Your task to perform on an android device: Open calendar and show me the second week of next month Image 0: 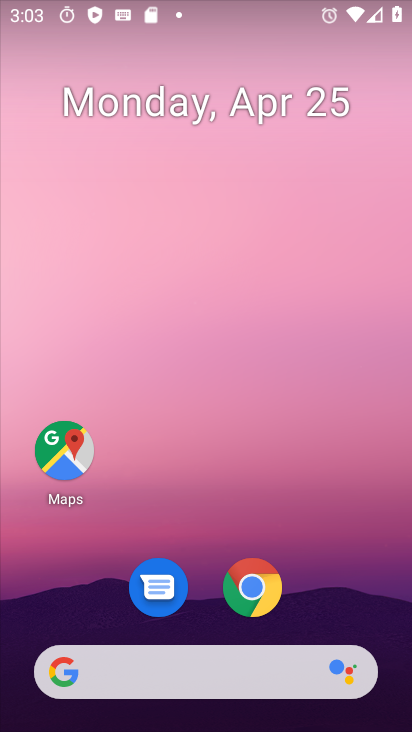
Step 0: drag from (369, 612) to (246, 105)
Your task to perform on an android device: Open calendar and show me the second week of next month Image 1: 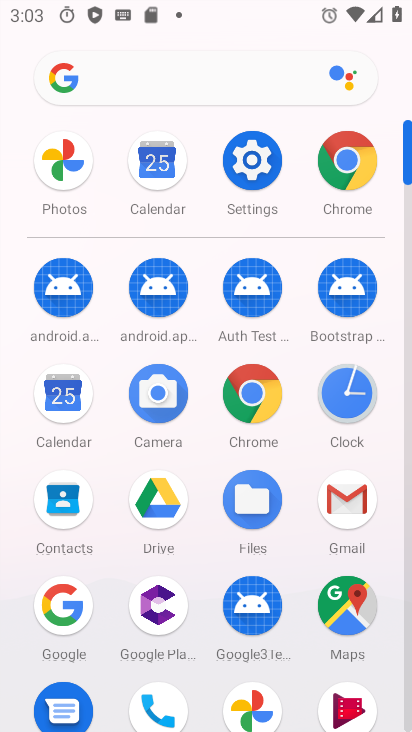
Step 1: click (57, 388)
Your task to perform on an android device: Open calendar and show me the second week of next month Image 2: 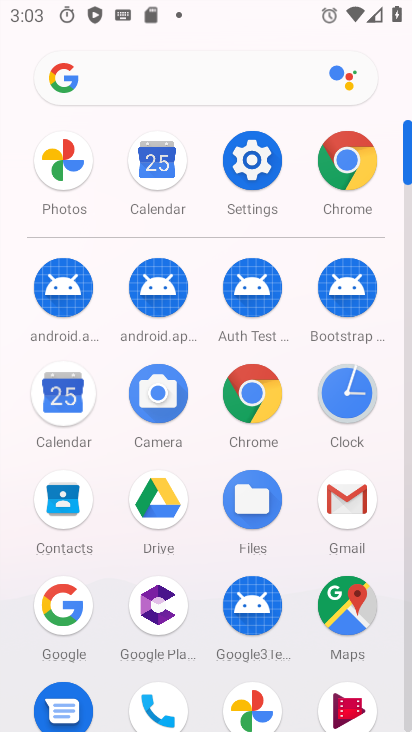
Step 2: click (58, 388)
Your task to perform on an android device: Open calendar and show me the second week of next month Image 3: 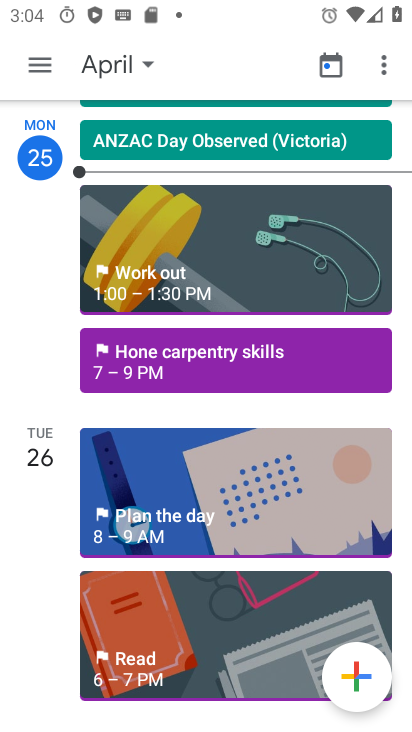
Step 3: click (105, 59)
Your task to perform on an android device: Open calendar and show me the second week of next month Image 4: 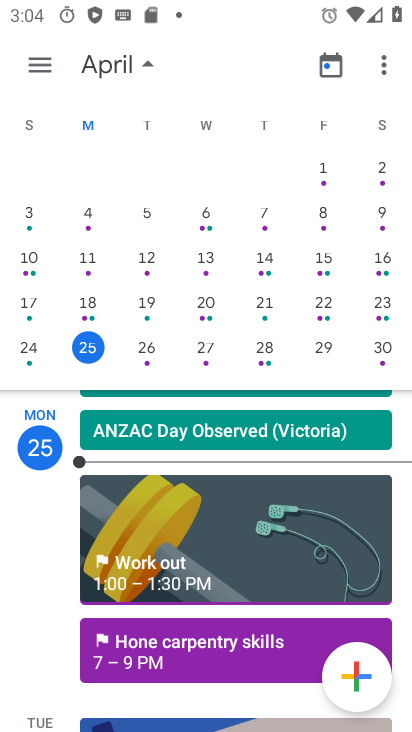
Step 4: drag from (387, 328) to (4, 314)
Your task to perform on an android device: Open calendar and show me the second week of next month Image 5: 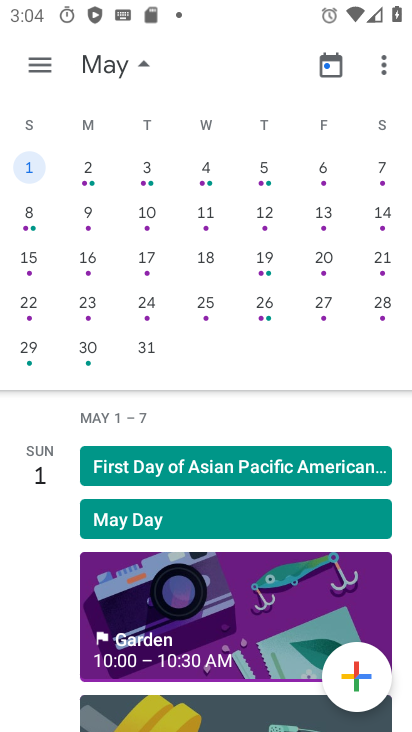
Step 5: click (143, 216)
Your task to perform on an android device: Open calendar and show me the second week of next month Image 6: 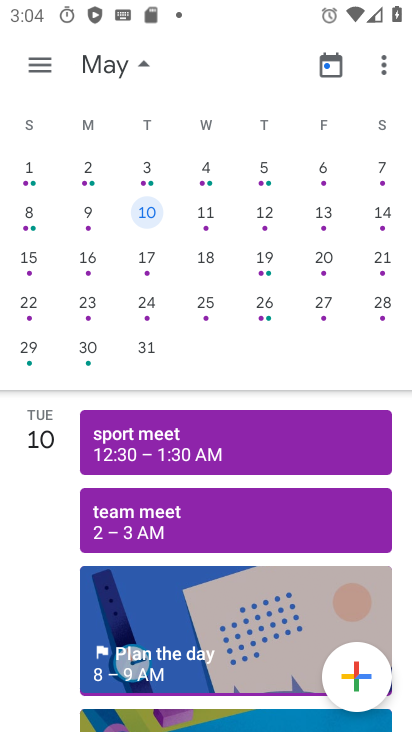
Step 6: task complete